Your task to perform on an android device: check out phone information Image 0: 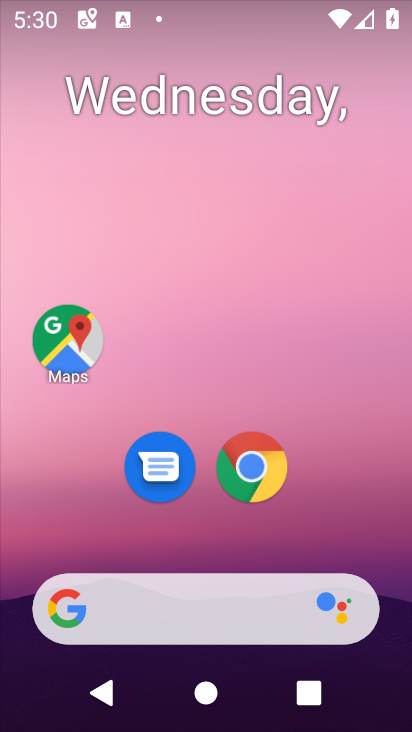
Step 0: drag from (307, 402) to (248, 76)
Your task to perform on an android device: check out phone information Image 1: 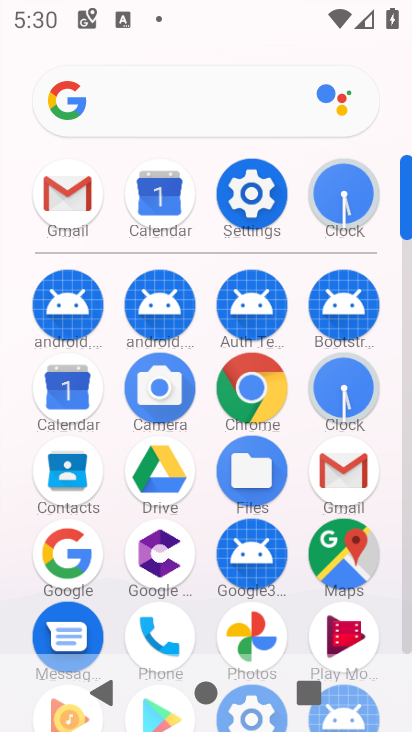
Step 1: click (261, 166)
Your task to perform on an android device: check out phone information Image 2: 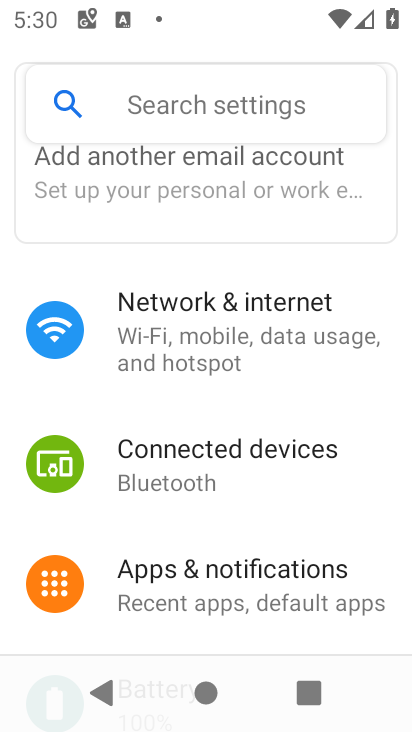
Step 2: drag from (306, 490) to (192, 10)
Your task to perform on an android device: check out phone information Image 3: 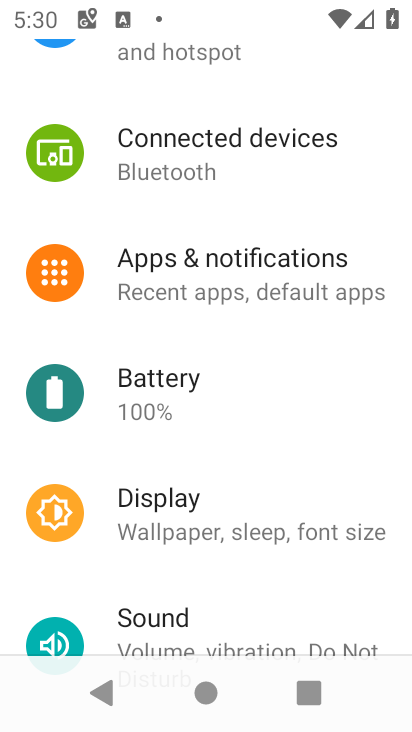
Step 3: drag from (274, 540) to (251, 140)
Your task to perform on an android device: check out phone information Image 4: 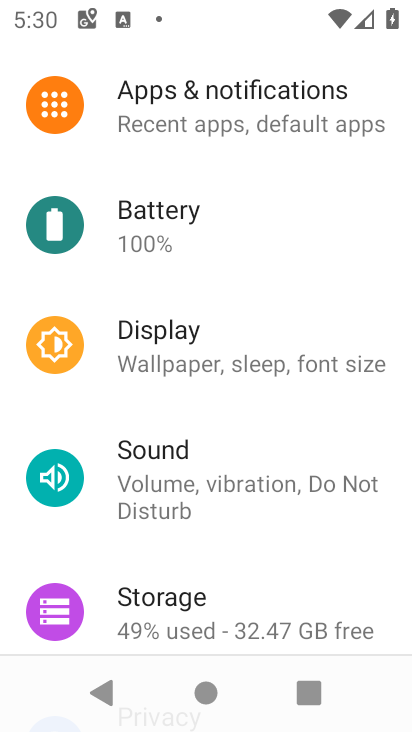
Step 4: drag from (264, 542) to (267, 123)
Your task to perform on an android device: check out phone information Image 5: 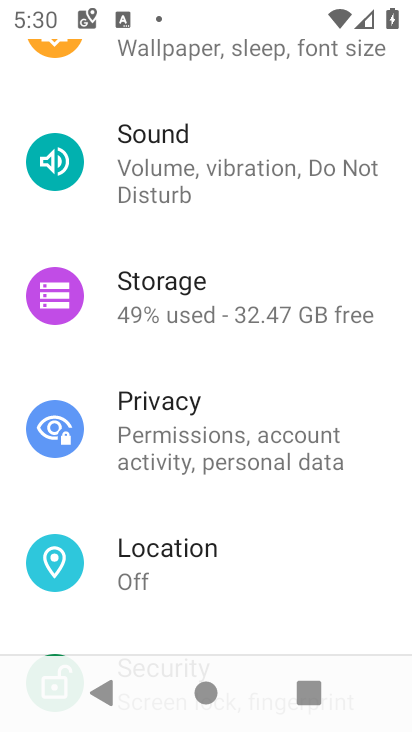
Step 5: drag from (288, 532) to (232, 32)
Your task to perform on an android device: check out phone information Image 6: 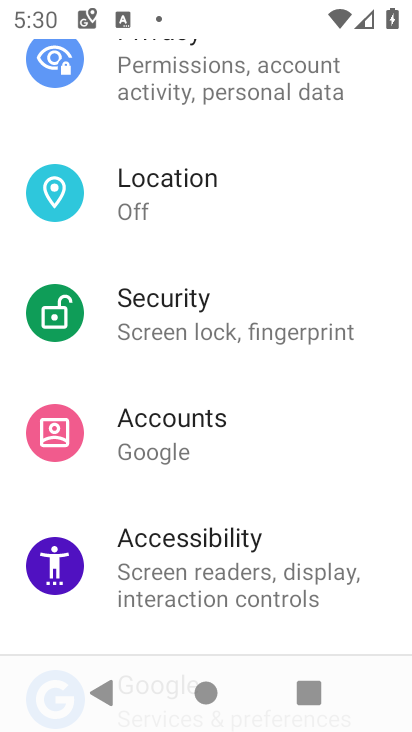
Step 6: drag from (259, 546) to (233, 141)
Your task to perform on an android device: check out phone information Image 7: 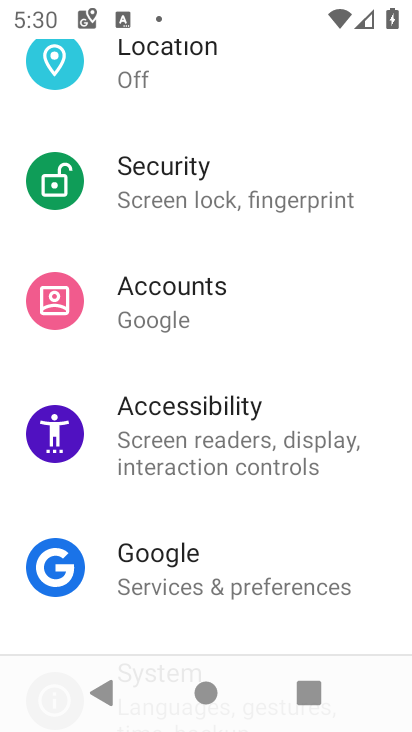
Step 7: drag from (257, 528) to (216, 157)
Your task to perform on an android device: check out phone information Image 8: 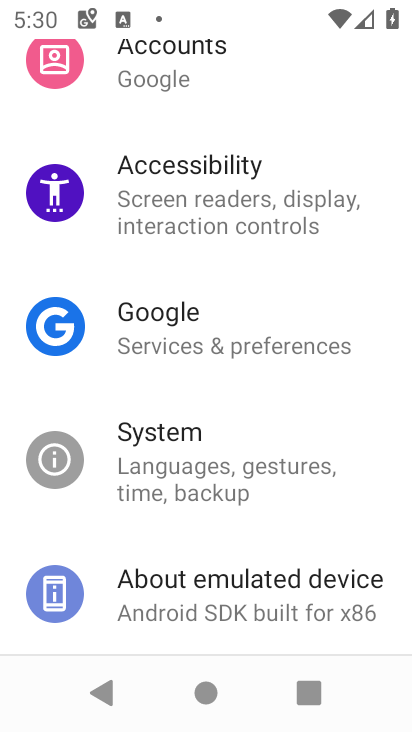
Step 8: click (269, 599)
Your task to perform on an android device: check out phone information Image 9: 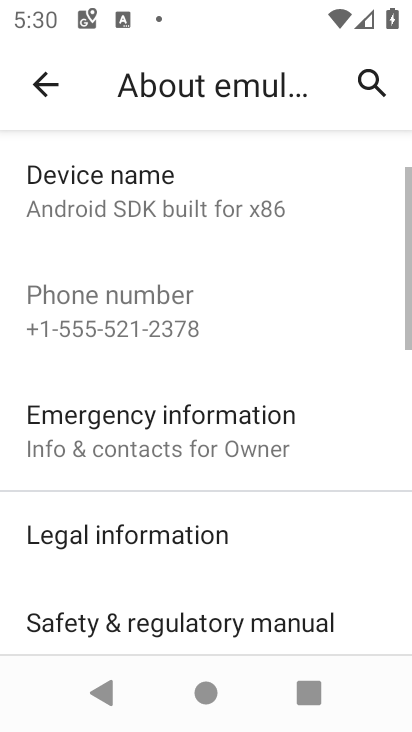
Step 9: task complete